Your task to perform on an android device: change text size in settings app Image 0: 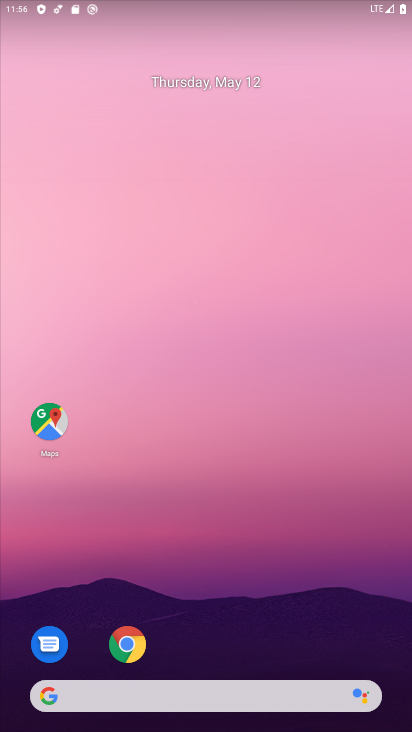
Step 0: drag from (330, 640) to (288, 36)
Your task to perform on an android device: change text size in settings app Image 1: 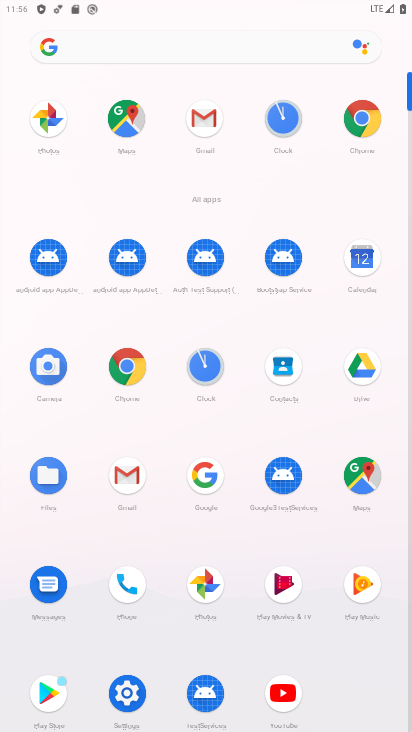
Step 1: click (122, 692)
Your task to perform on an android device: change text size in settings app Image 2: 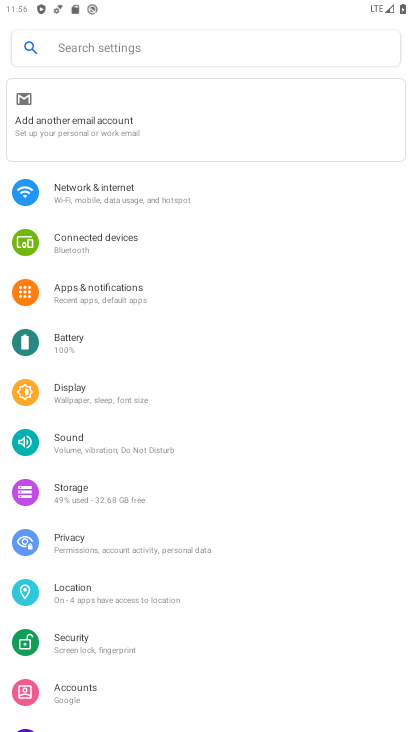
Step 2: click (167, 399)
Your task to perform on an android device: change text size in settings app Image 3: 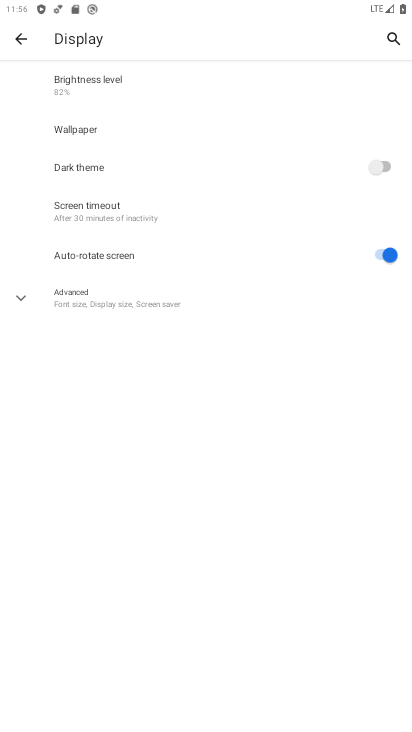
Step 3: click (115, 296)
Your task to perform on an android device: change text size in settings app Image 4: 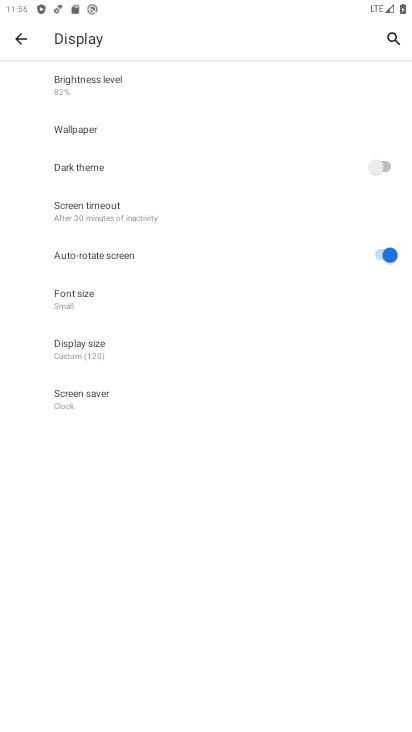
Step 4: click (121, 302)
Your task to perform on an android device: change text size in settings app Image 5: 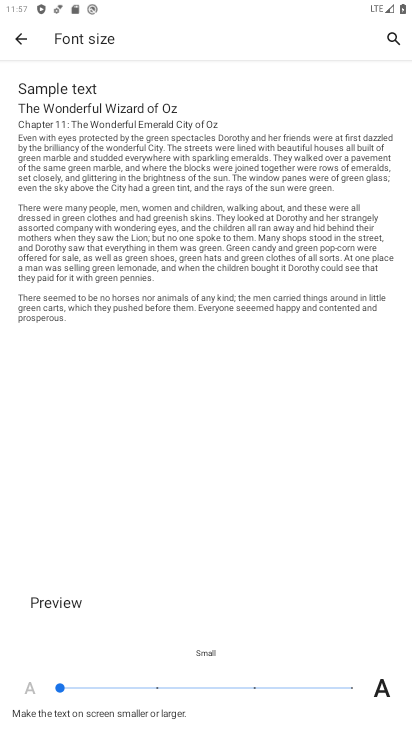
Step 5: click (153, 685)
Your task to perform on an android device: change text size in settings app Image 6: 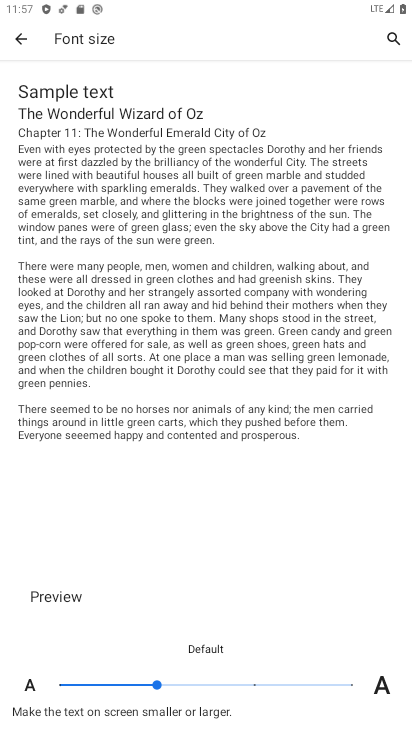
Step 6: task complete